Your task to perform on an android device: set the timer Image 0: 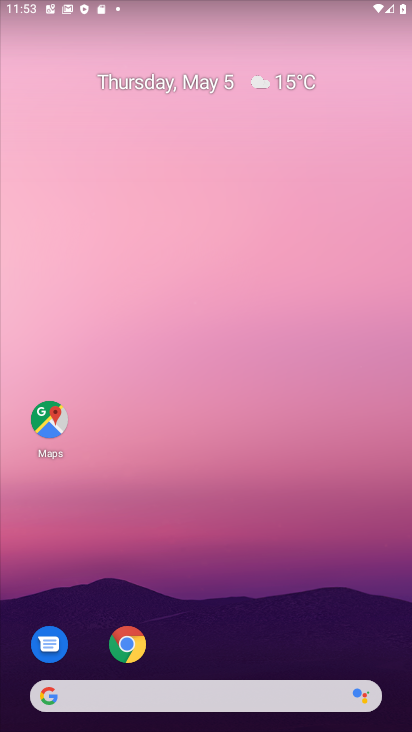
Step 0: drag from (256, 513) to (188, 15)
Your task to perform on an android device: set the timer Image 1: 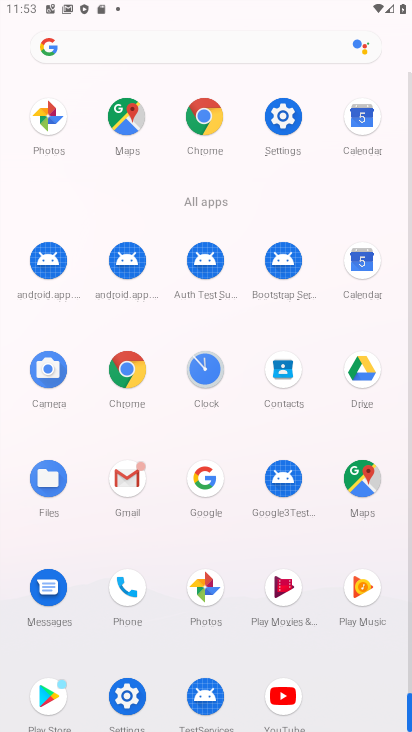
Step 1: drag from (19, 579) to (9, 279)
Your task to perform on an android device: set the timer Image 2: 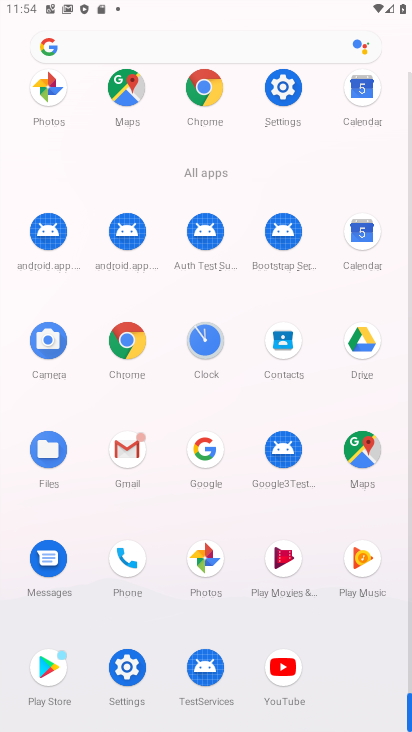
Step 2: click (204, 337)
Your task to perform on an android device: set the timer Image 3: 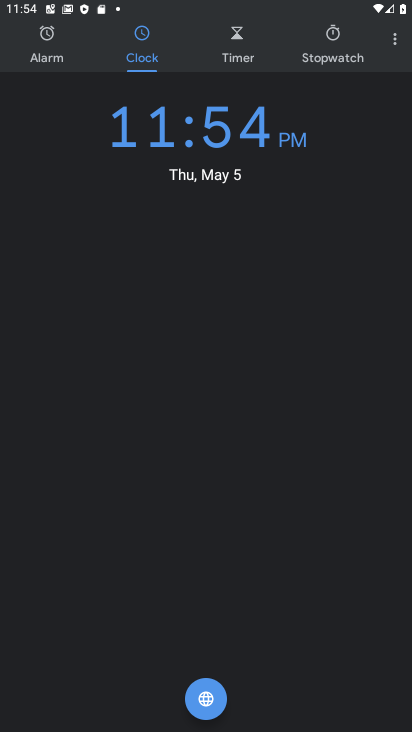
Step 3: click (221, 42)
Your task to perform on an android device: set the timer Image 4: 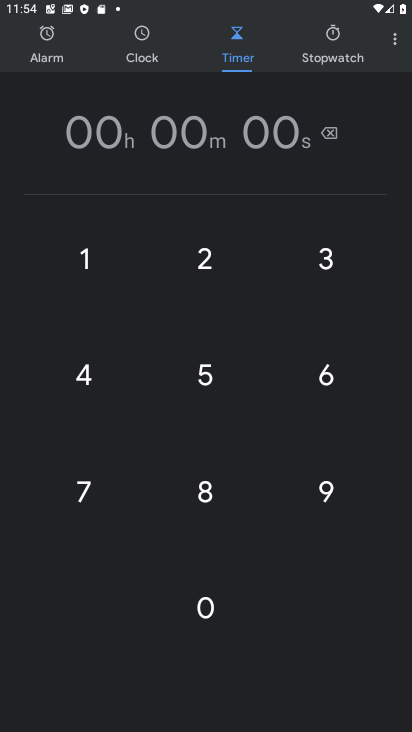
Step 4: click (206, 257)
Your task to perform on an android device: set the timer Image 5: 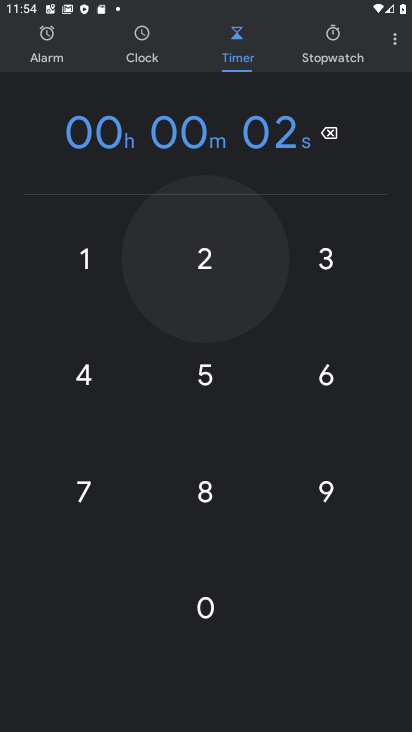
Step 5: click (79, 248)
Your task to perform on an android device: set the timer Image 6: 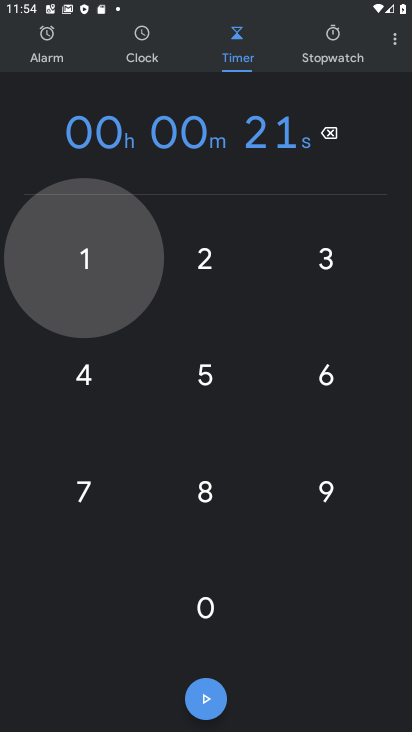
Step 6: click (77, 357)
Your task to perform on an android device: set the timer Image 7: 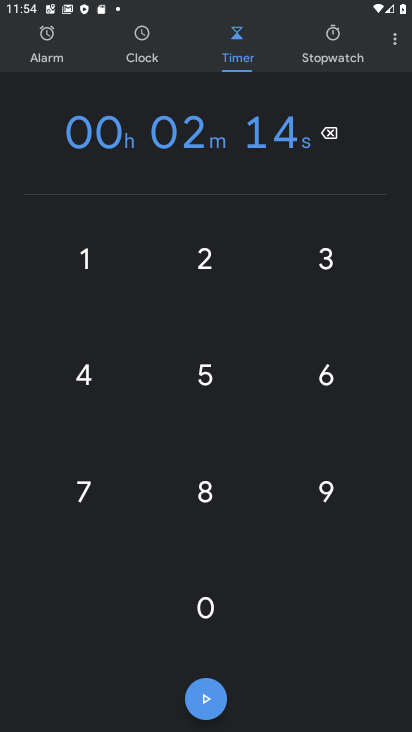
Step 7: click (220, 366)
Your task to perform on an android device: set the timer Image 8: 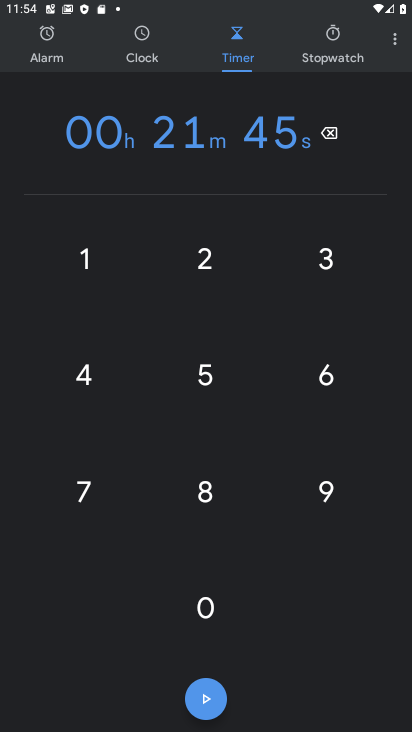
Step 8: click (321, 374)
Your task to perform on an android device: set the timer Image 9: 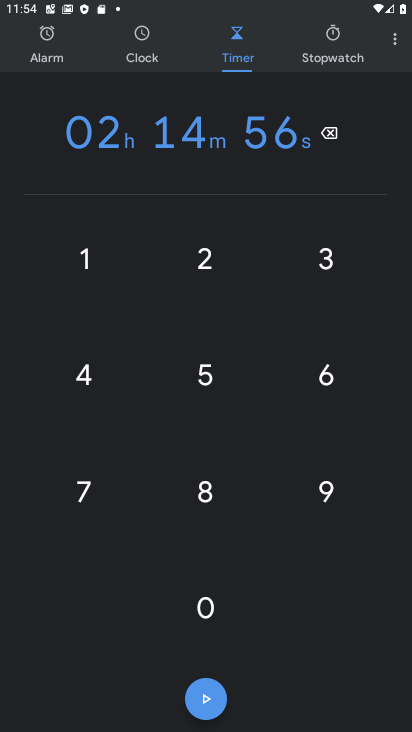
Step 9: click (210, 695)
Your task to perform on an android device: set the timer Image 10: 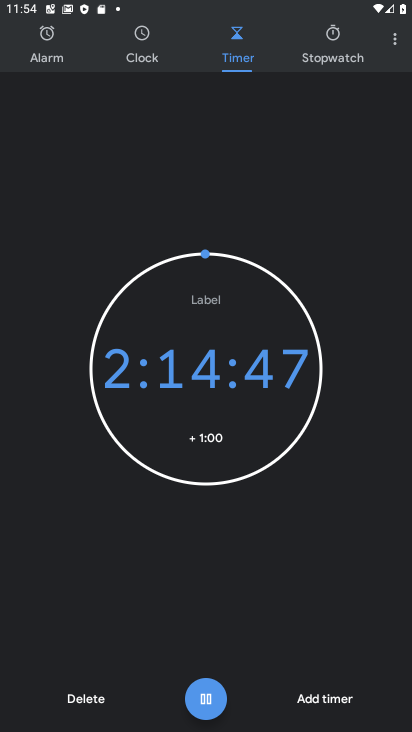
Step 10: task complete